Your task to perform on an android device: visit the assistant section in the google photos Image 0: 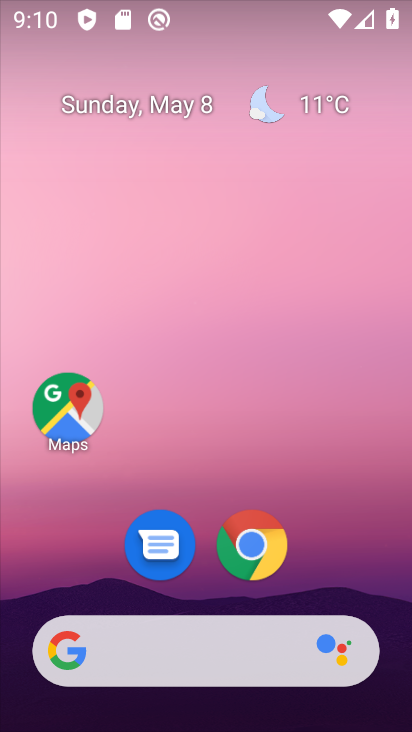
Step 0: drag from (195, 607) to (119, 14)
Your task to perform on an android device: visit the assistant section in the google photos Image 1: 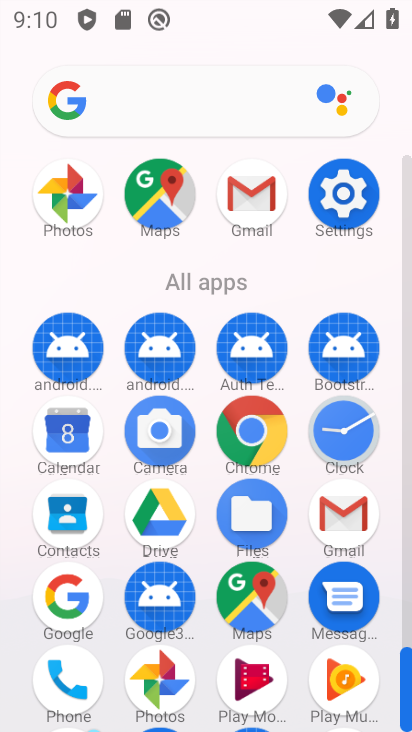
Step 1: click (168, 657)
Your task to perform on an android device: visit the assistant section in the google photos Image 2: 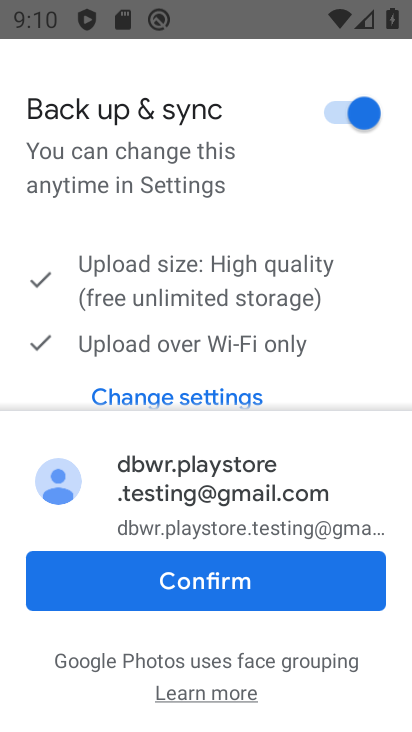
Step 2: click (223, 579)
Your task to perform on an android device: visit the assistant section in the google photos Image 3: 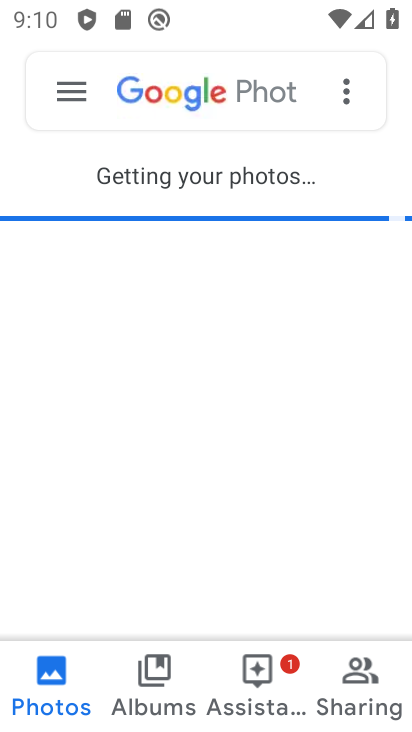
Step 3: click (246, 671)
Your task to perform on an android device: visit the assistant section in the google photos Image 4: 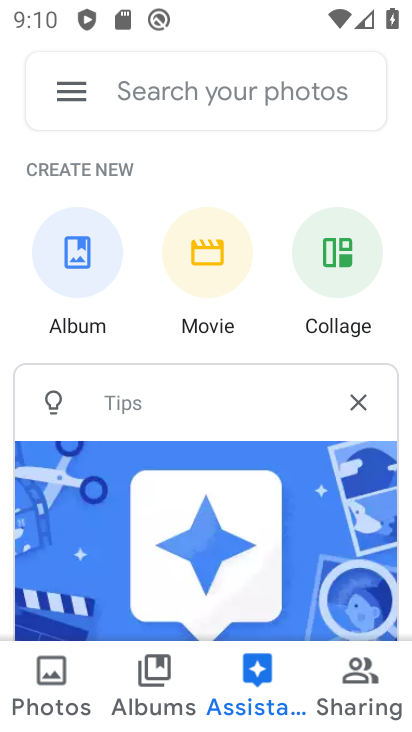
Step 4: task complete